Your task to perform on an android device: open chrome privacy settings Image 0: 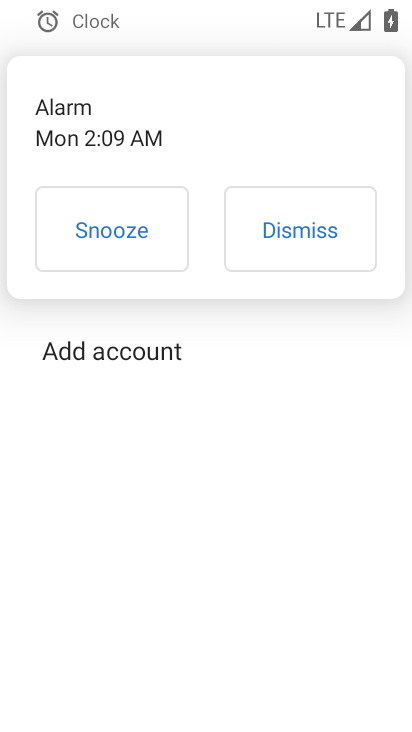
Step 0: press home button
Your task to perform on an android device: open chrome privacy settings Image 1: 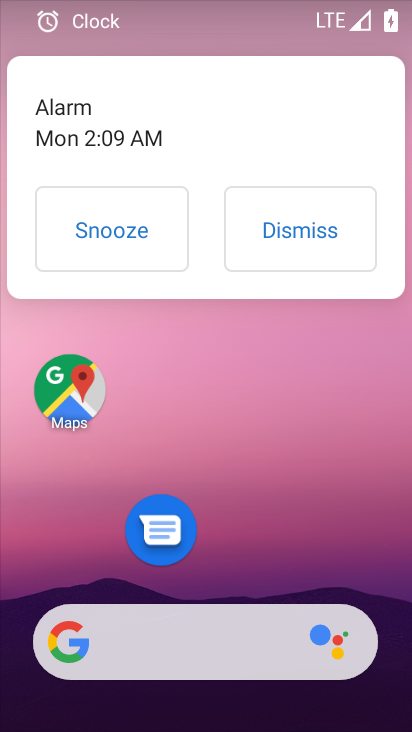
Step 1: drag from (205, 725) to (202, 141)
Your task to perform on an android device: open chrome privacy settings Image 2: 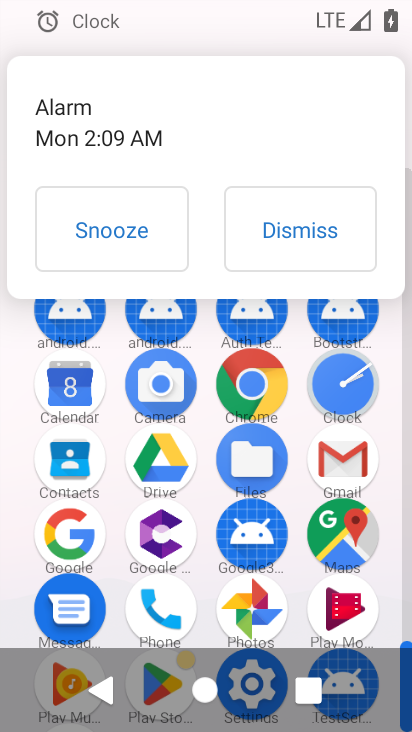
Step 2: click (293, 238)
Your task to perform on an android device: open chrome privacy settings Image 3: 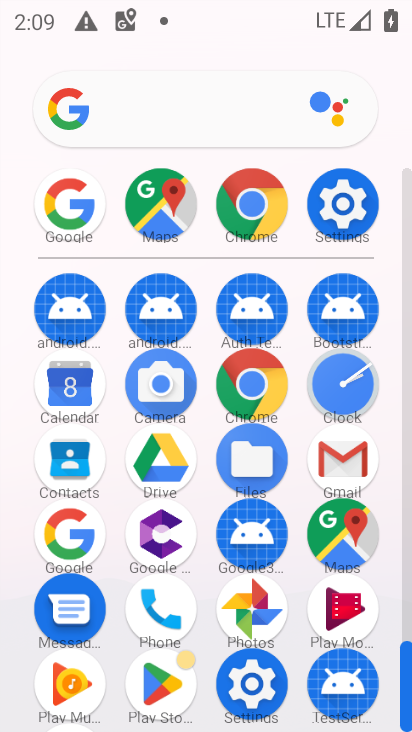
Step 3: click (254, 388)
Your task to perform on an android device: open chrome privacy settings Image 4: 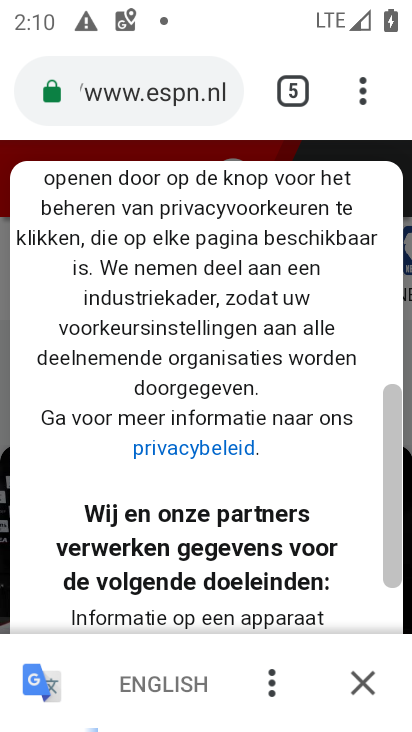
Step 4: drag from (359, 103) to (185, 541)
Your task to perform on an android device: open chrome privacy settings Image 5: 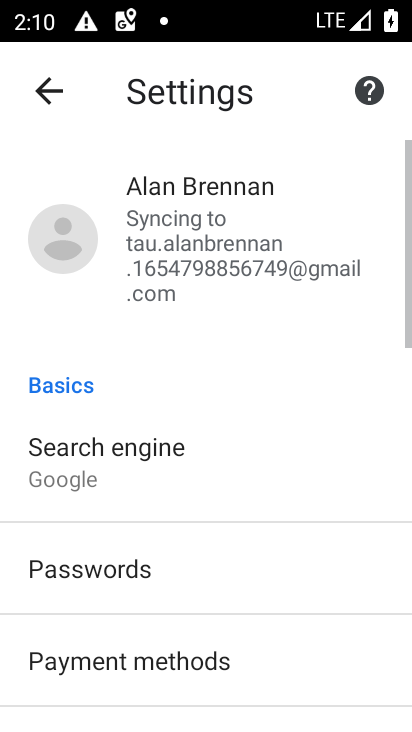
Step 5: drag from (138, 636) to (146, 236)
Your task to perform on an android device: open chrome privacy settings Image 6: 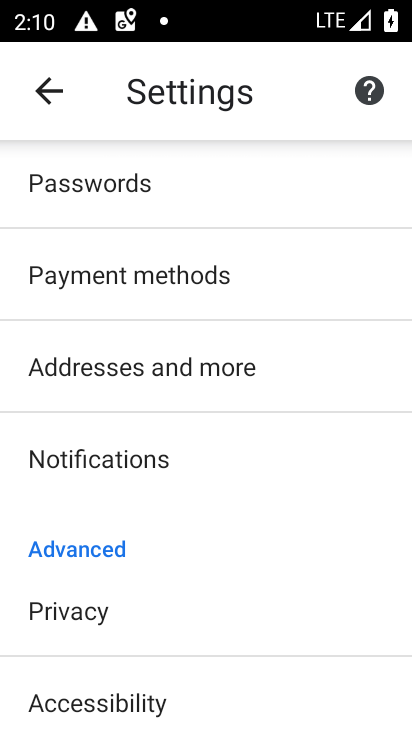
Step 6: click (98, 604)
Your task to perform on an android device: open chrome privacy settings Image 7: 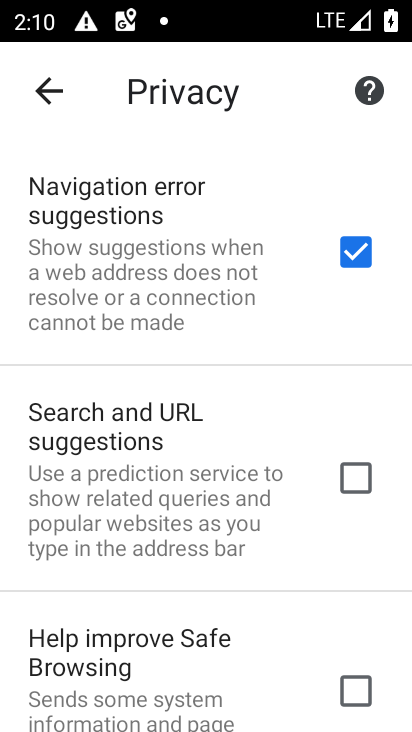
Step 7: task complete